Your task to perform on an android device: change the clock display to analog Image 0: 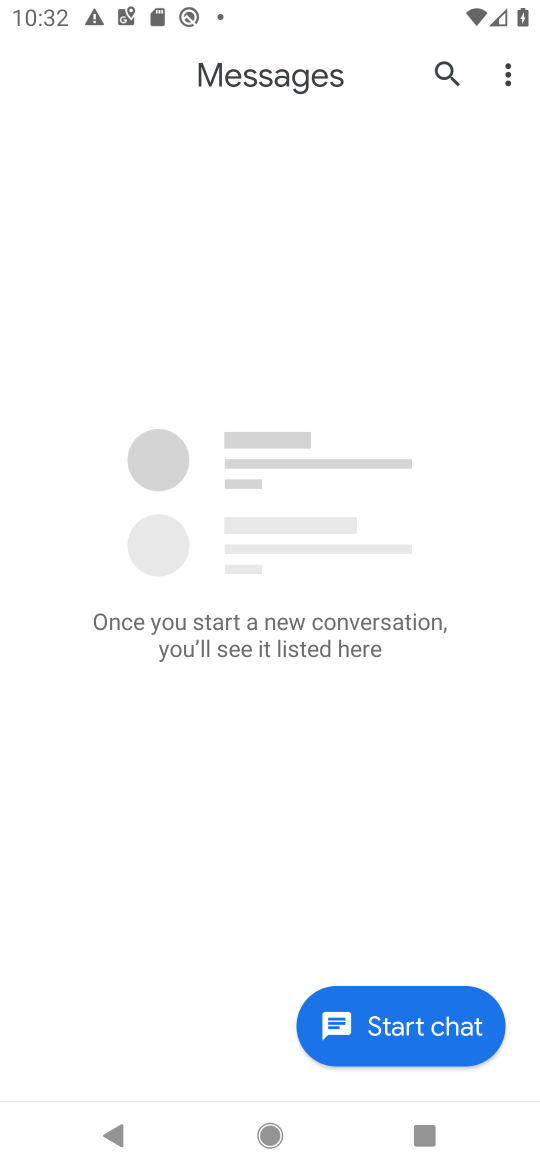
Step 0: press home button
Your task to perform on an android device: change the clock display to analog Image 1: 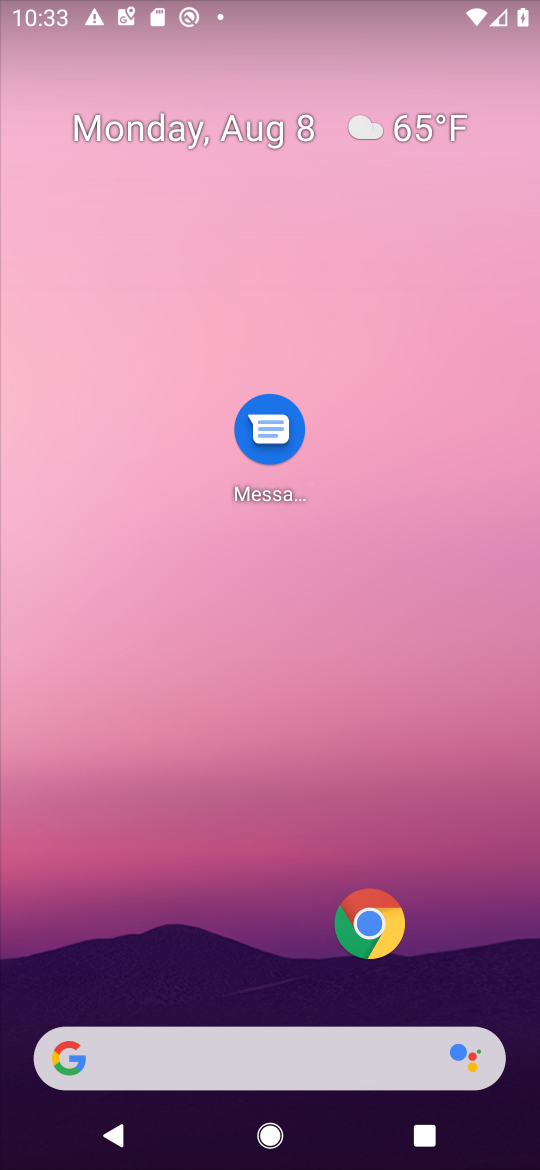
Step 1: task complete